Your task to perform on an android device: Turn on the flashlight Image 0: 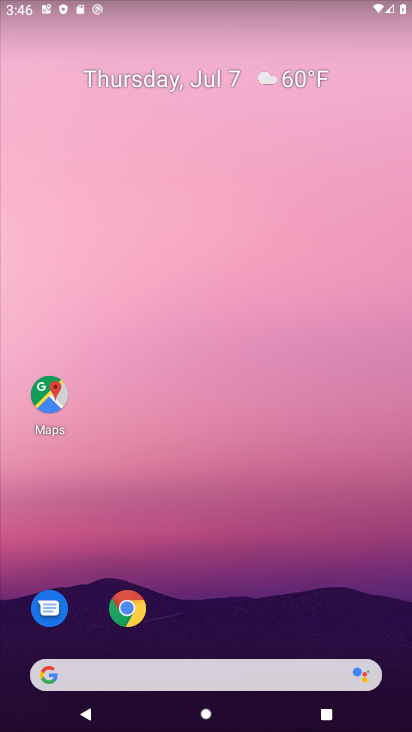
Step 0: drag from (196, 9) to (175, 444)
Your task to perform on an android device: Turn on the flashlight Image 1: 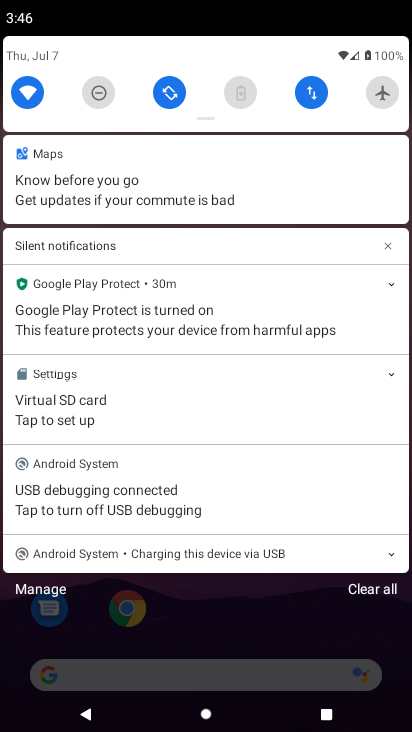
Step 1: drag from (208, 120) to (201, 497)
Your task to perform on an android device: Turn on the flashlight Image 2: 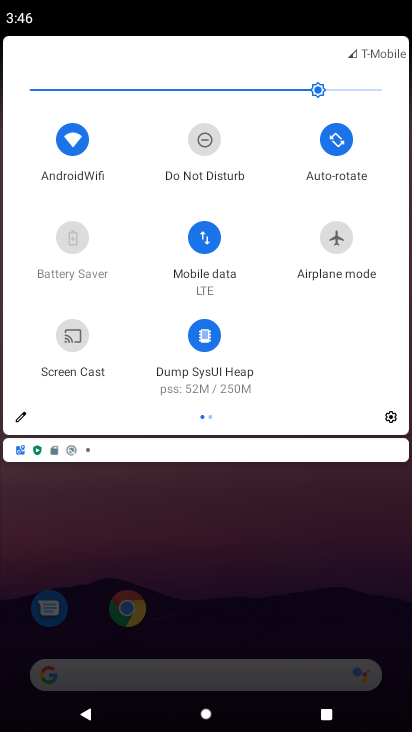
Step 2: drag from (337, 309) to (30, 292)
Your task to perform on an android device: Turn on the flashlight Image 3: 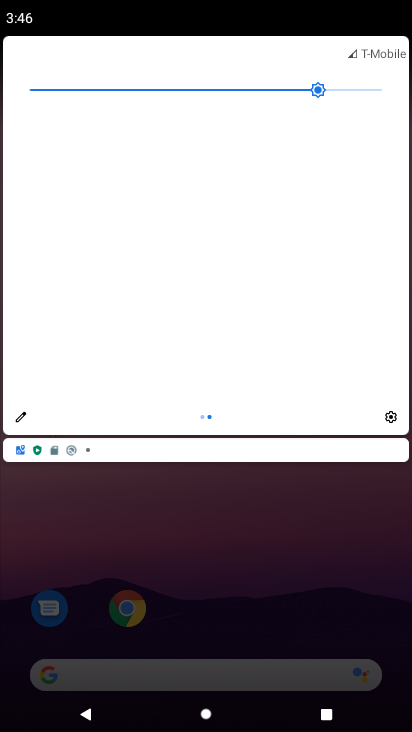
Step 3: click (12, 424)
Your task to perform on an android device: Turn on the flashlight Image 4: 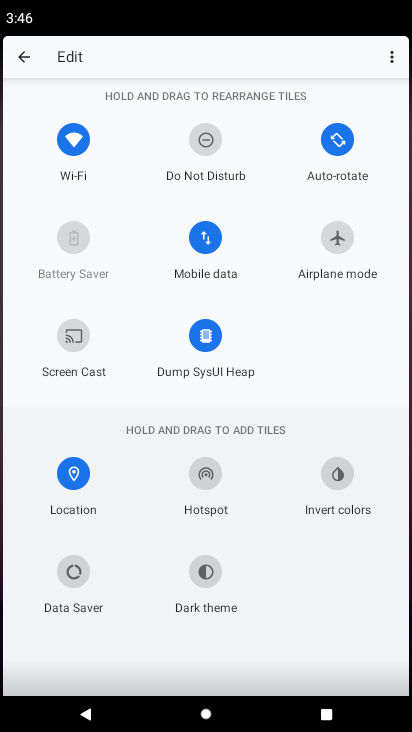
Step 4: task complete